Your task to perform on an android device: toggle sleep mode Image 0: 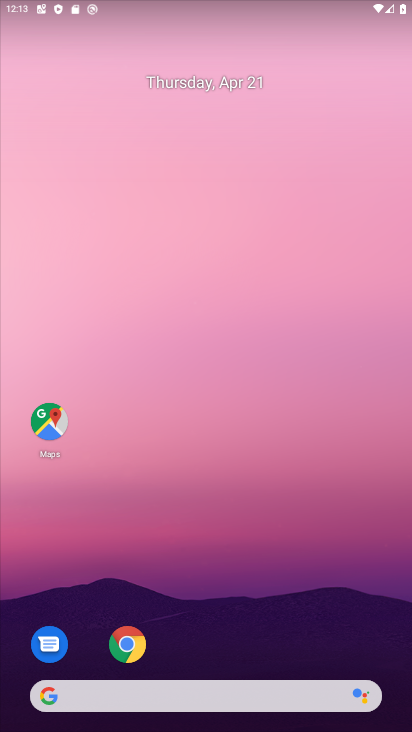
Step 0: drag from (293, 564) to (319, 74)
Your task to perform on an android device: toggle sleep mode Image 1: 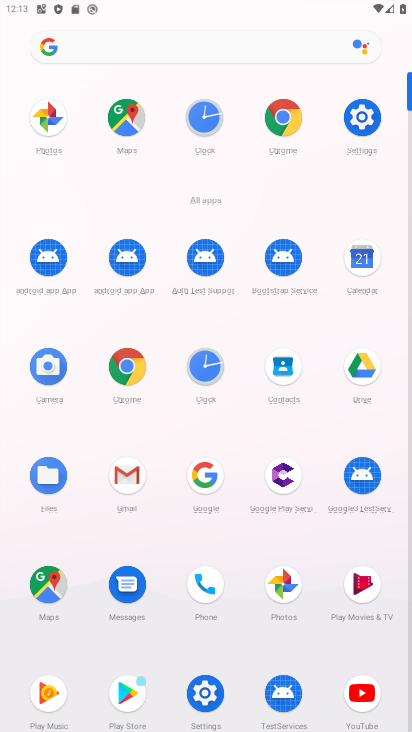
Step 1: click (375, 122)
Your task to perform on an android device: toggle sleep mode Image 2: 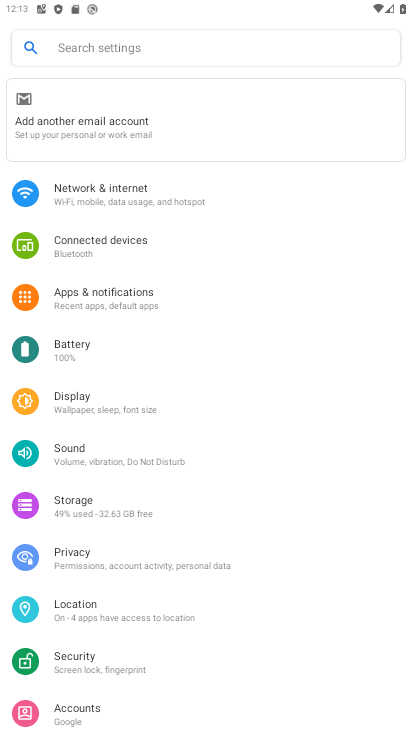
Step 2: click (136, 47)
Your task to perform on an android device: toggle sleep mode Image 3: 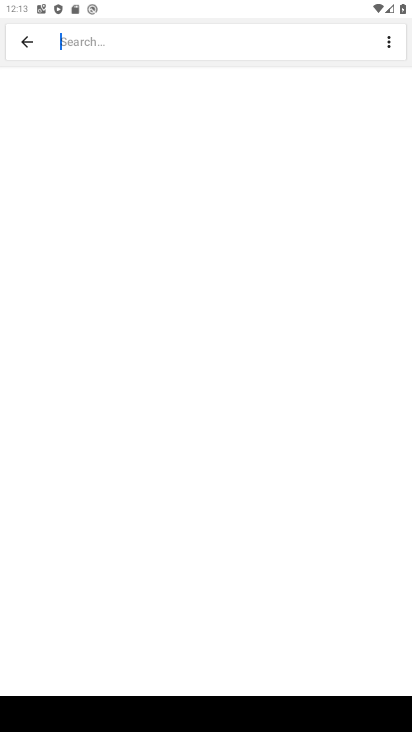
Step 3: type "sleep mode"
Your task to perform on an android device: toggle sleep mode Image 4: 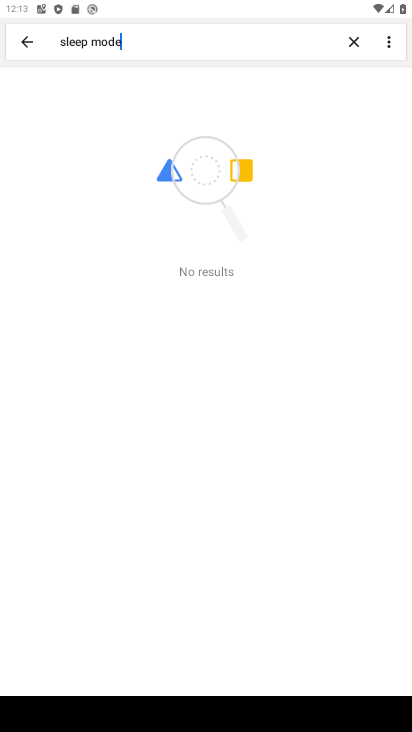
Step 4: task complete